Your task to perform on an android device: open chrome privacy settings Image 0: 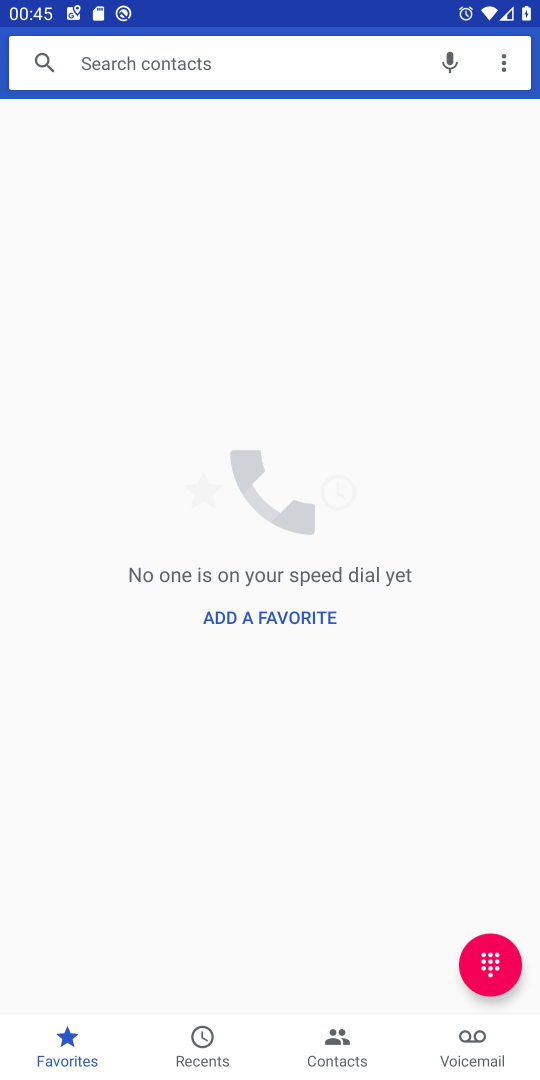
Step 0: press home button
Your task to perform on an android device: open chrome privacy settings Image 1: 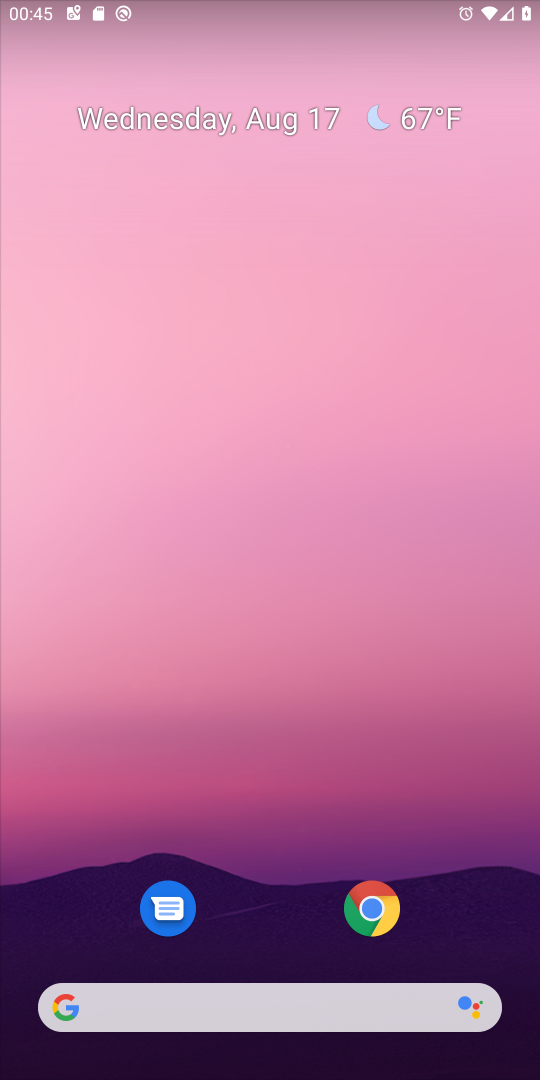
Step 1: drag from (240, 899) to (264, 348)
Your task to perform on an android device: open chrome privacy settings Image 2: 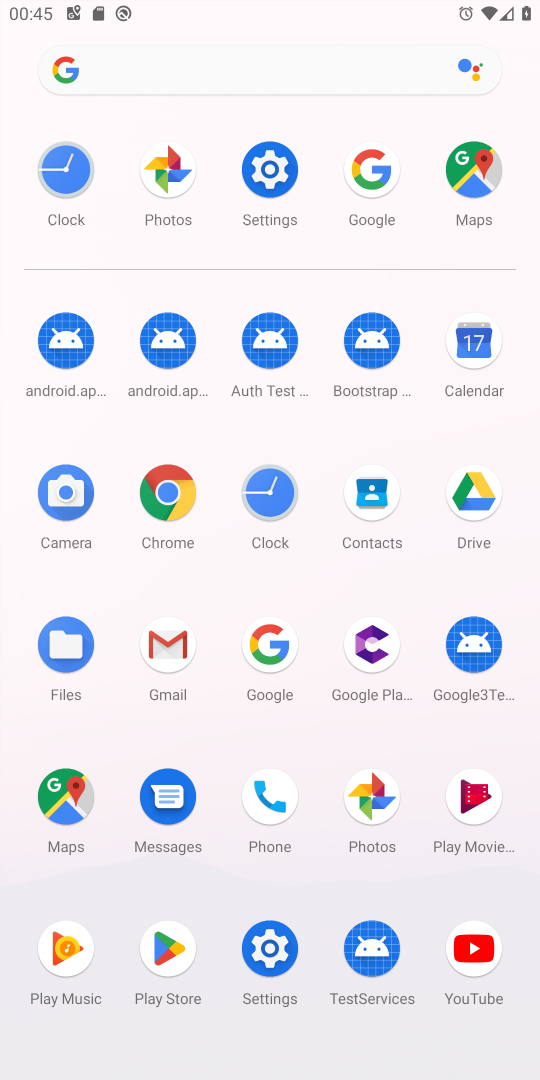
Step 2: click (190, 510)
Your task to perform on an android device: open chrome privacy settings Image 3: 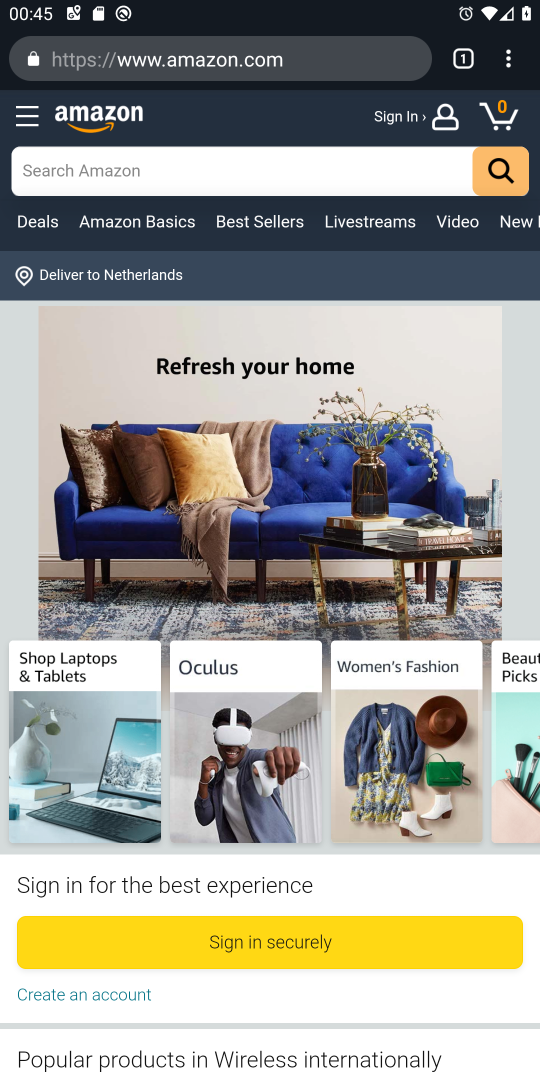
Step 3: click (514, 70)
Your task to perform on an android device: open chrome privacy settings Image 4: 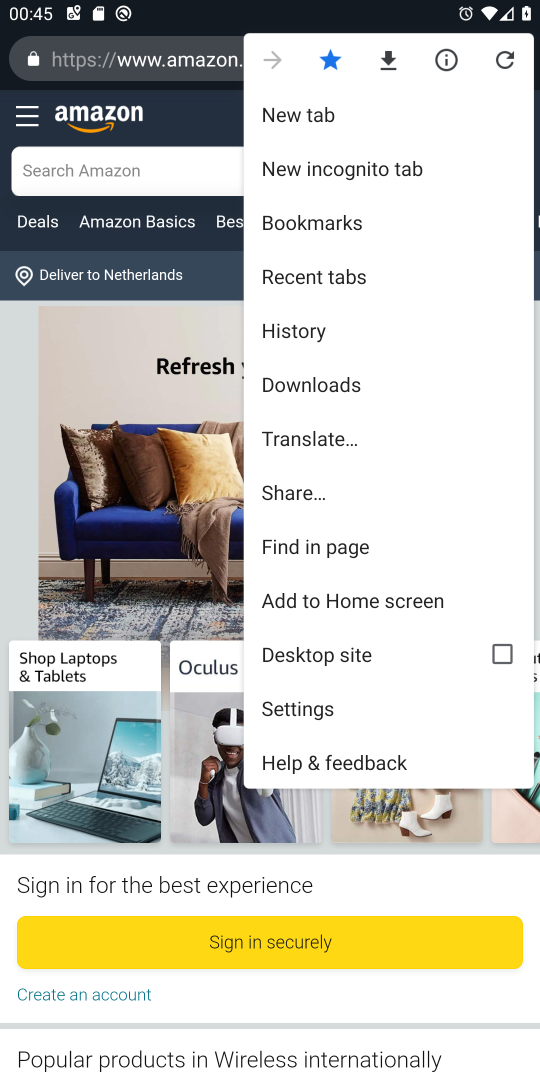
Step 4: click (297, 718)
Your task to perform on an android device: open chrome privacy settings Image 5: 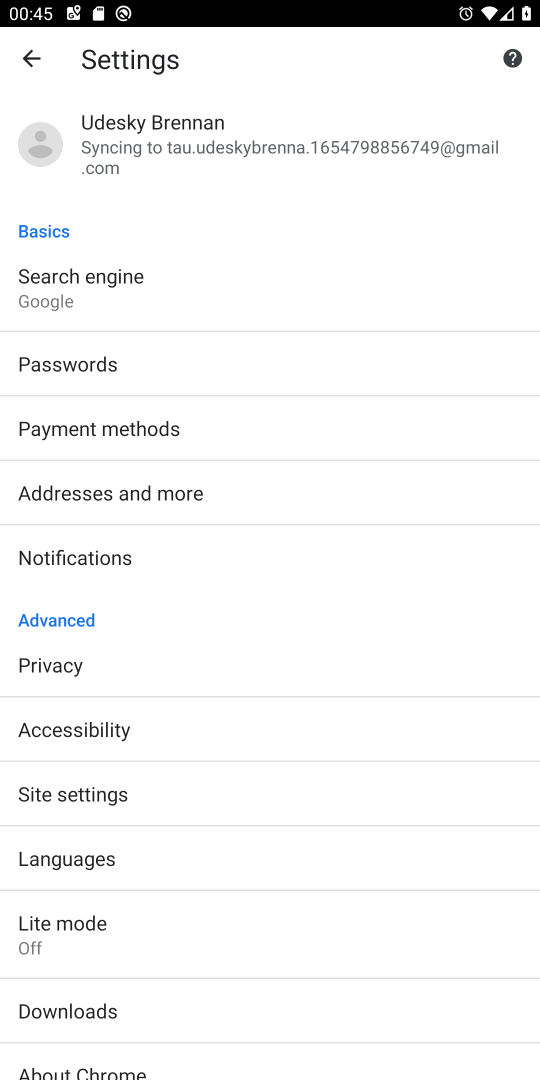
Step 5: click (128, 654)
Your task to perform on an android device: open chrome privacy settings Image 6: 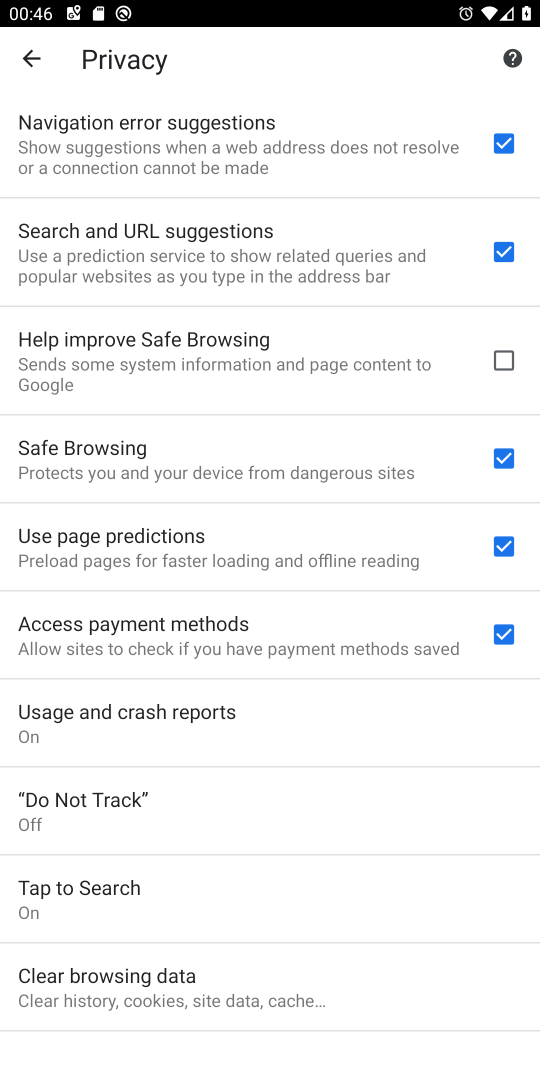
Step 6: task complete